Your task to perform on an android device: Open Chrome and go to settings Image 0: 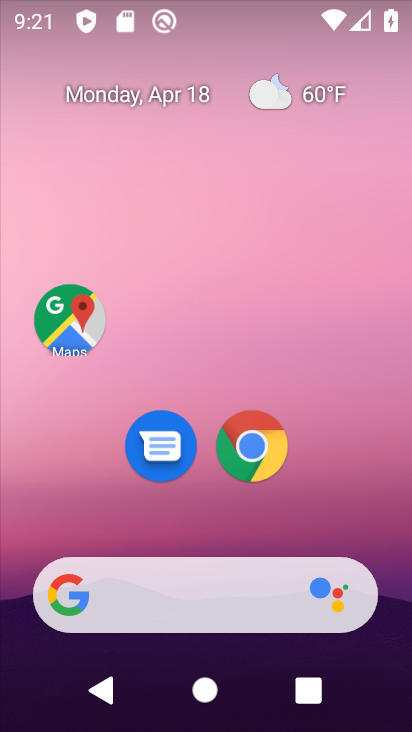
Step 0: click (257, 413)
Your task to perform on an android device: Open Chrome and go to settings Image 1: 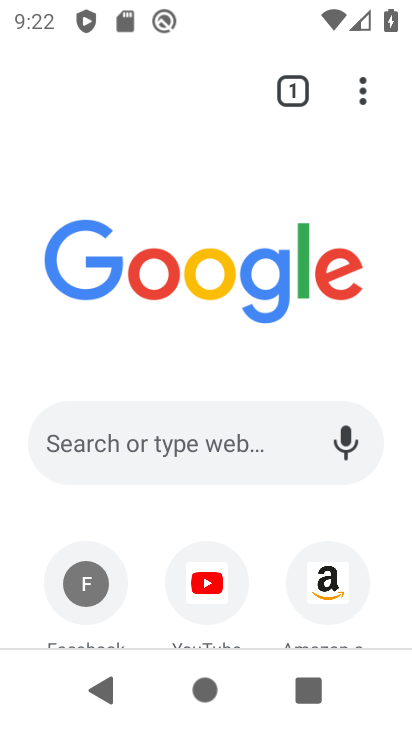
Step 1: click (372, 101)
Your task to perform on an android device: Open Chrome and go to settings Image 2: 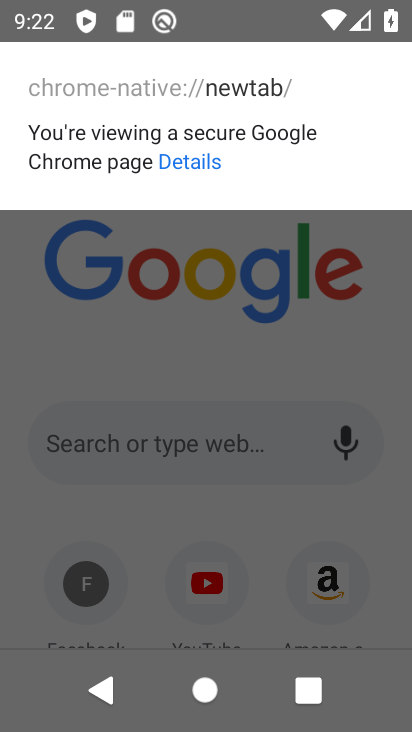
Step 2: click (381, 281)
Your task to perform on an android device: Open Chrome and go to settings Image 3: 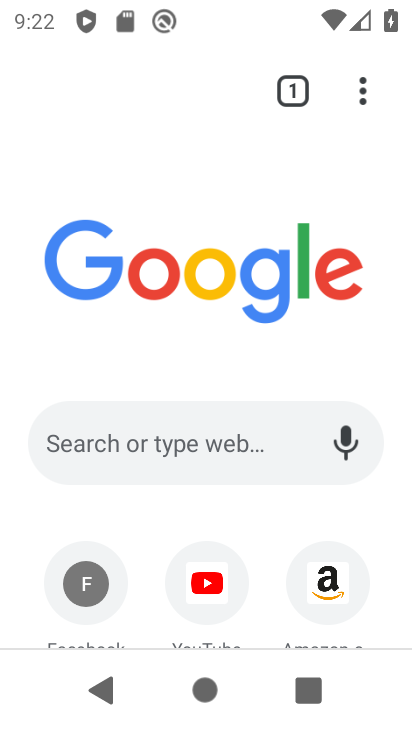
Step 3: click (370, 90)
Your task to perform on an android device: Open Chrome and go to settings Image 4: 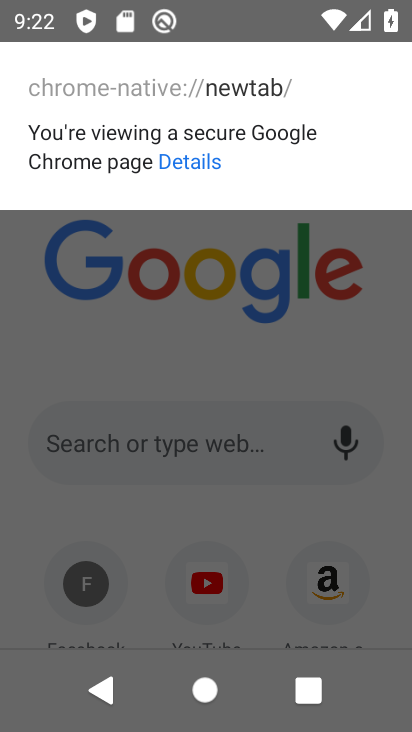
Step 4: click (334, 234)
Your task to perform on an android device: Open Chrome and go to settings Image 5: 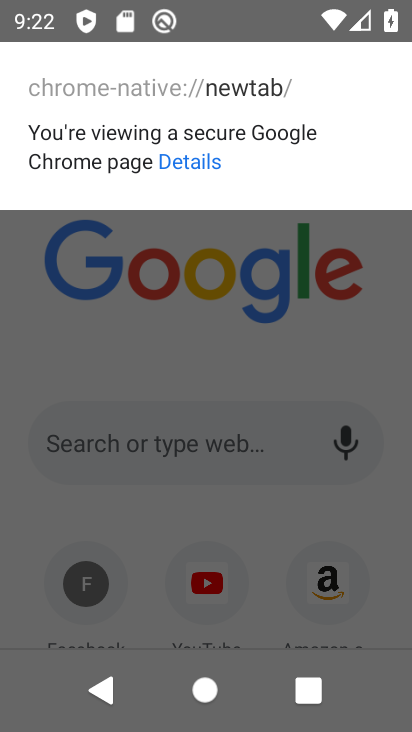
Step 5: click (270, 257)
Your task to perform on an android device: Open Chrome and go to settings Image 6: 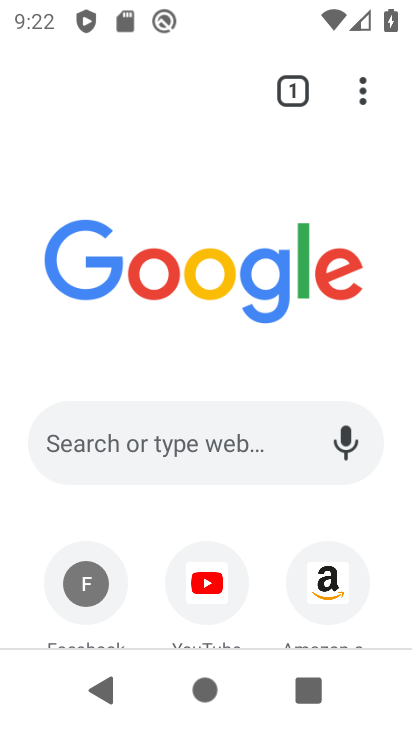
Step 6: click (366, 91)
Your task to perform on an android device: Open Chrome and go to settings Image 7: 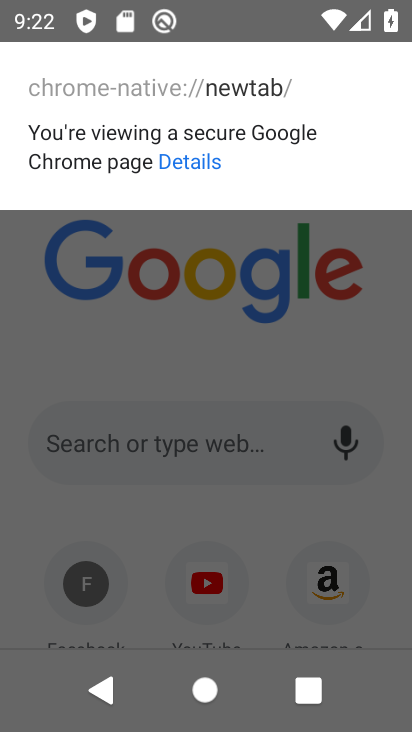
Step 7: click (250, 366)
Your task to perform on an android device: Open Chrome and go to settings Image 8: 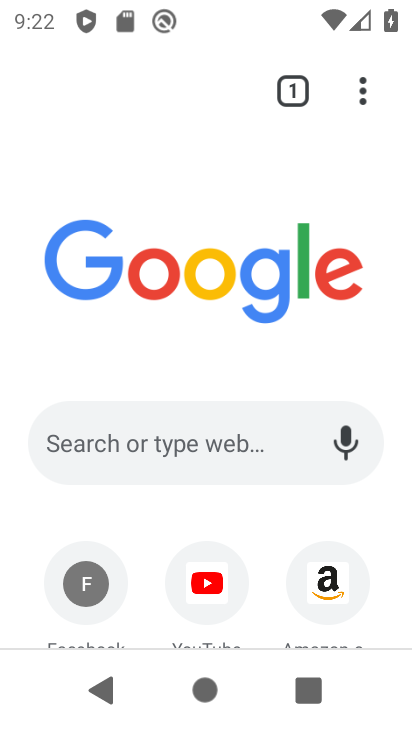
Step 8: task complete